Your task to perform on an android device: Search for vegetarian restaurants on Maps Image 0: 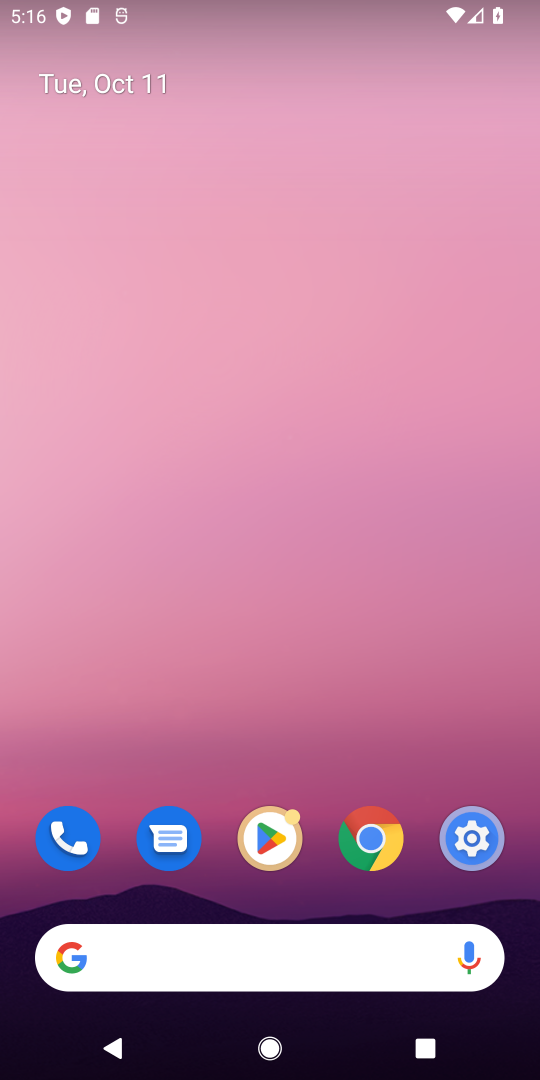
Step 0: drag from (323, 910) to (287, 502)
Your task to perform on an android device: Search for vegetarian restaurants on Maps Image 1: 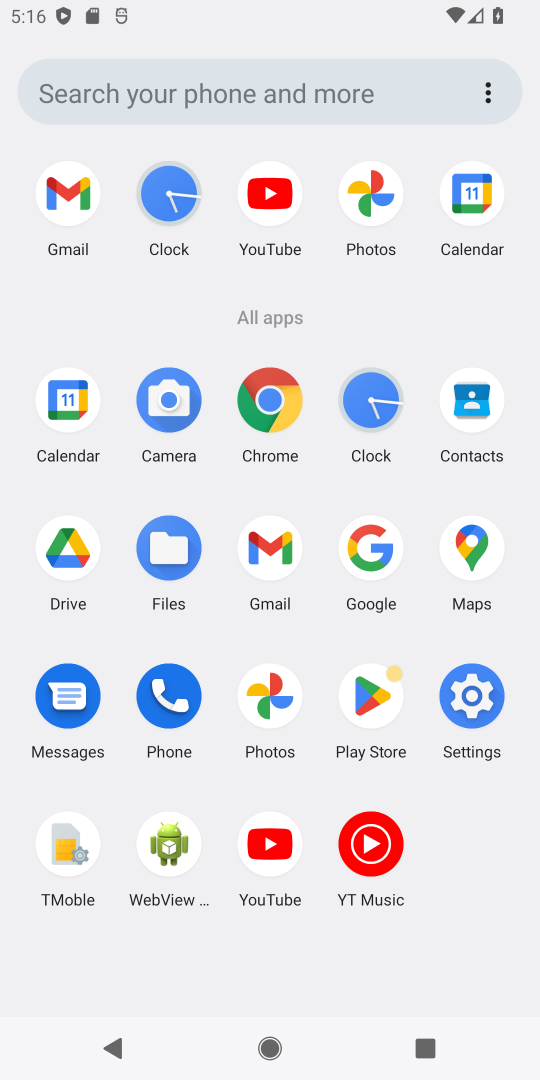
Step 1: click (468, 547)
Your task to perform on an android device: Search for vegetarian restaurants on Maps Image 2: 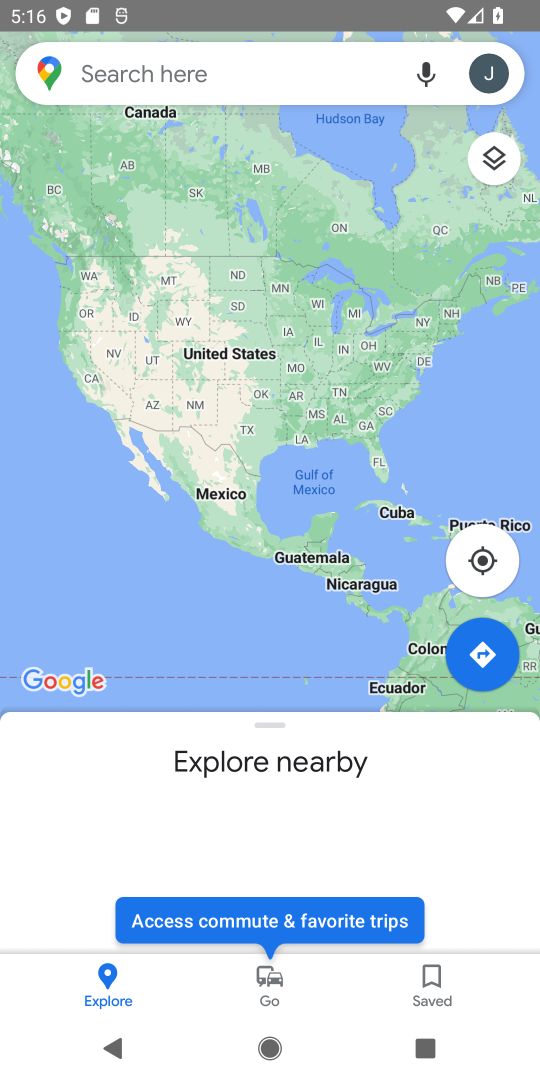
Step 2: click (195, 77)
Your task to perform on an android device: Search for vegetarian restaurants on Maps Image 3: 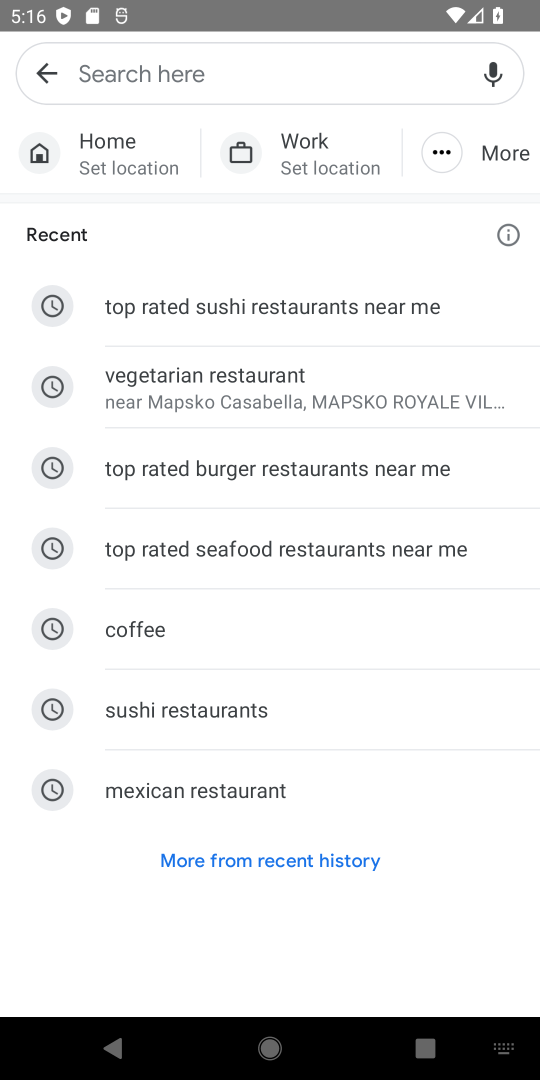
Step 3: click (195, 77)
Your task to perform on an android device: Search for vegetarian restaurants on Maps Image 4: 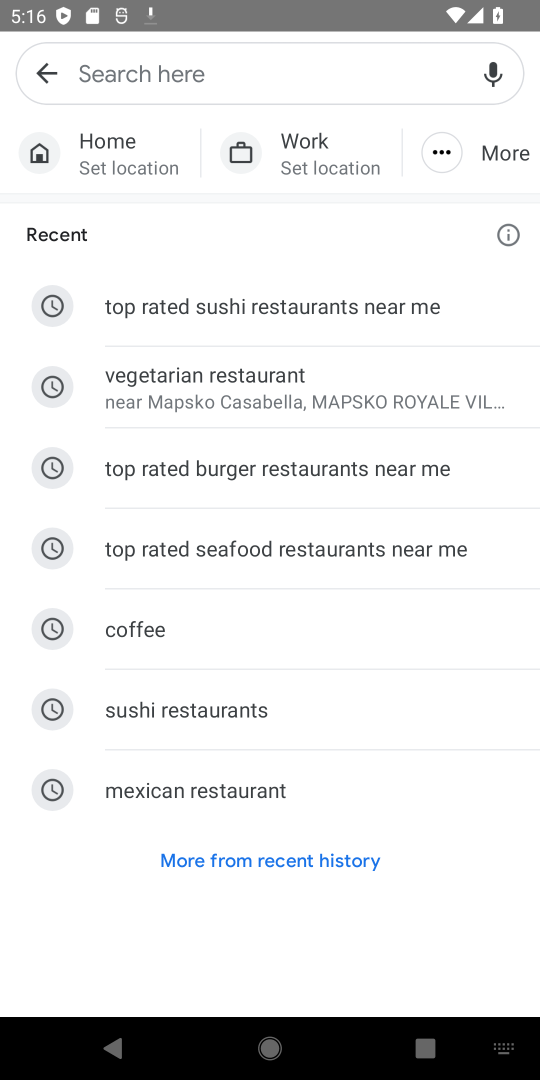
Step 4: type "vegetarian restaurants"
Your task to perform on an android device: Search for vegetarian restaurants on Maps Image 5: 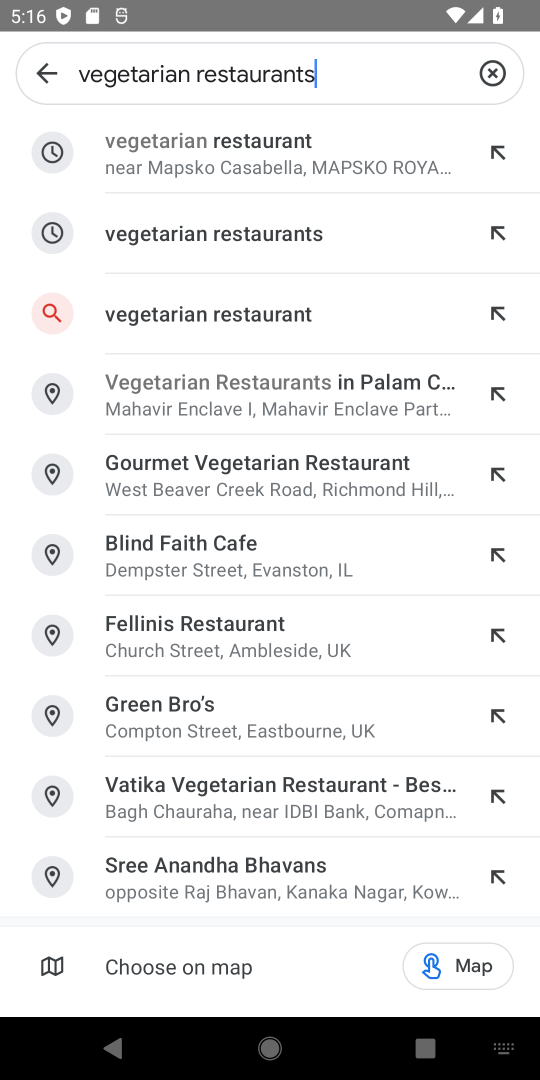
Step 5: click (238, 231)
Your task to perform on an android device: Search for vegetarian restaurants on Maps Image 6: 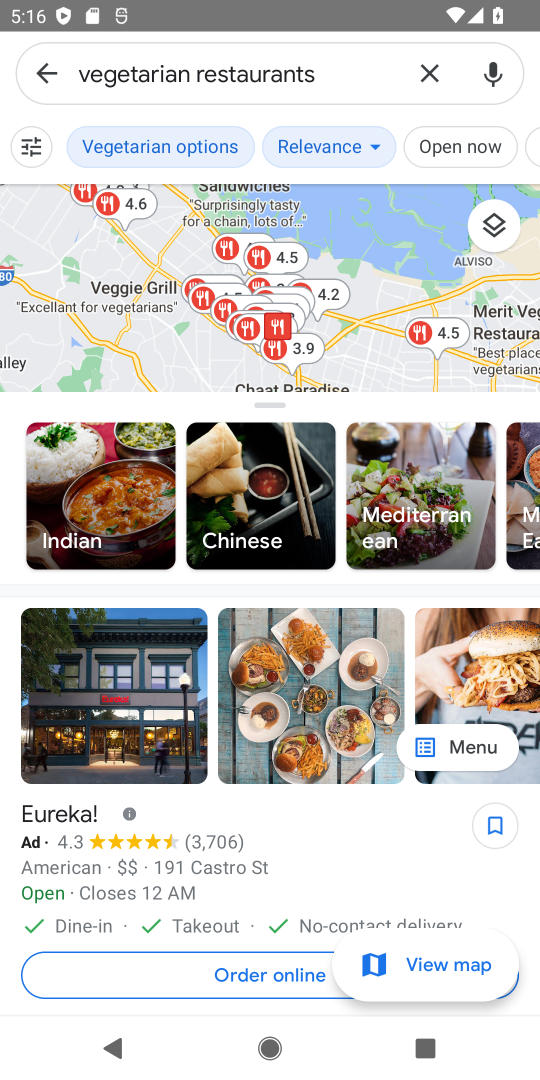
Step 6: drag from (314, 809) to (200, 347)
Your task to perform on an android device: Search for vegetarian restaurants on Maps Image 7: 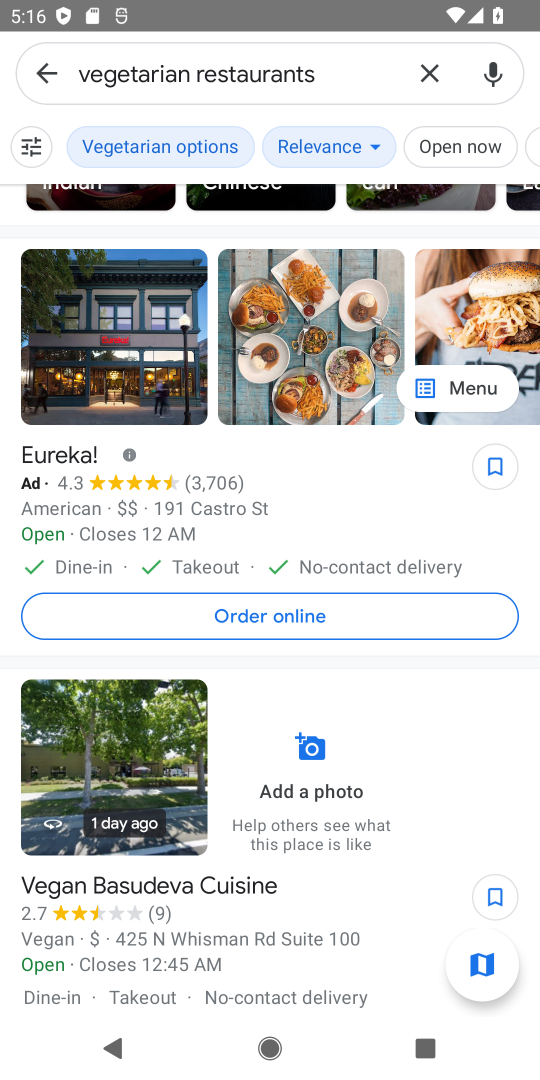
Step 7: drag from (295, 668) to (267, 430)
Your task to perform on an android device: Search for vegetarian restaurants on Maps Image 8: 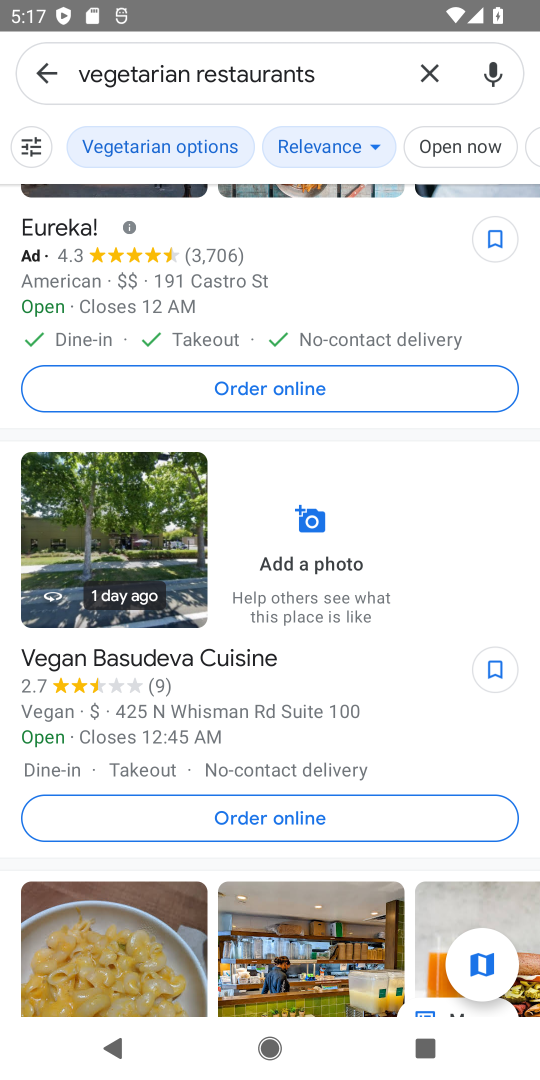
Step 8: drag from (502, 734) to (410, 273)
Your task to perform on an android device: Search for vegetarian restaurants on Maps Image 9: 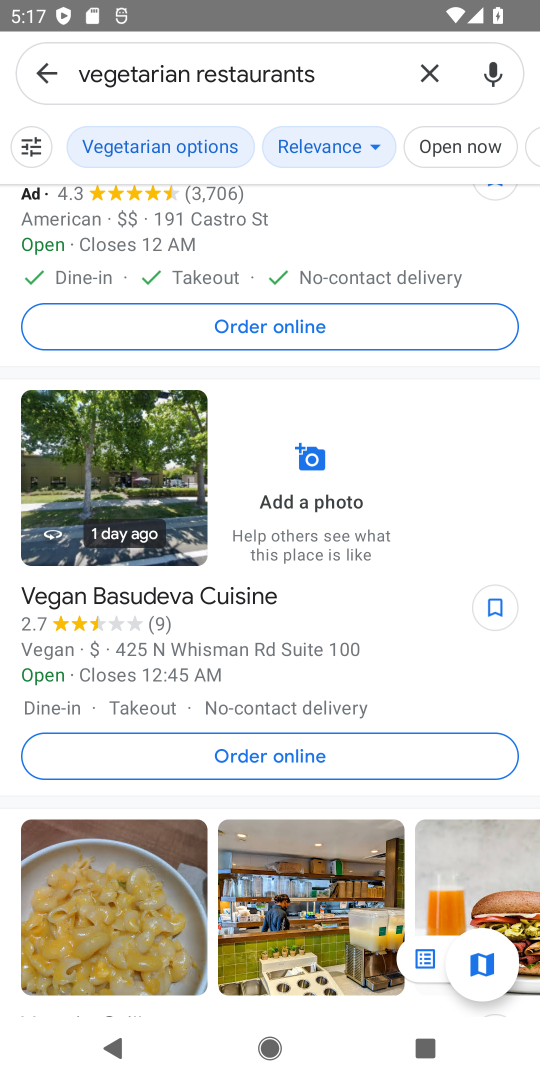
Step 9: drag from (503, 678) to (326, 222)
Your task to perform on an android device: Search for vegetarian restaurants on Maps Image 10: 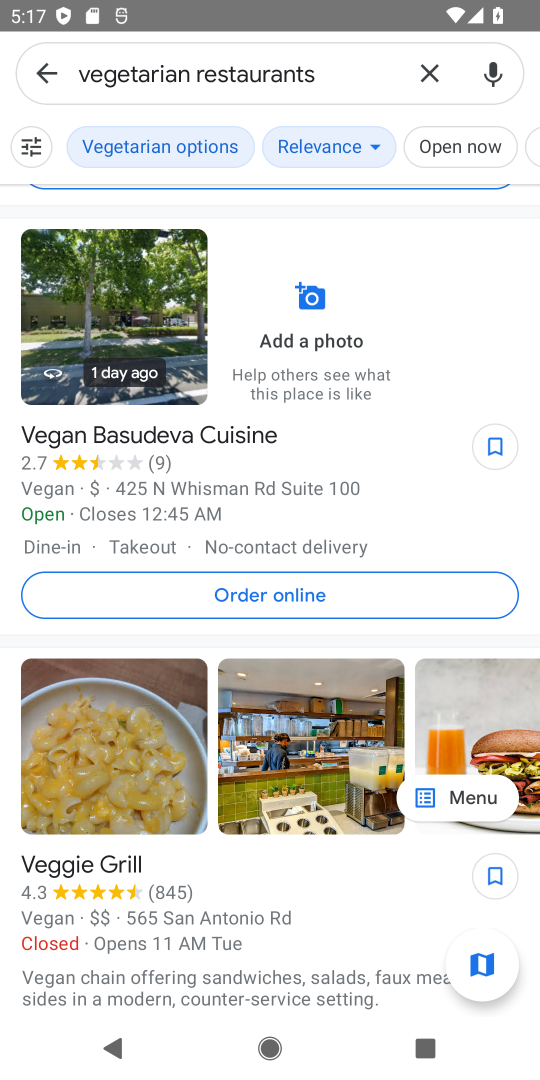
Step 10: drag from (434, 523) to (302, 198)
Your task to perform on an android device: Search for vegetarian restaurants on Maps Image 11: 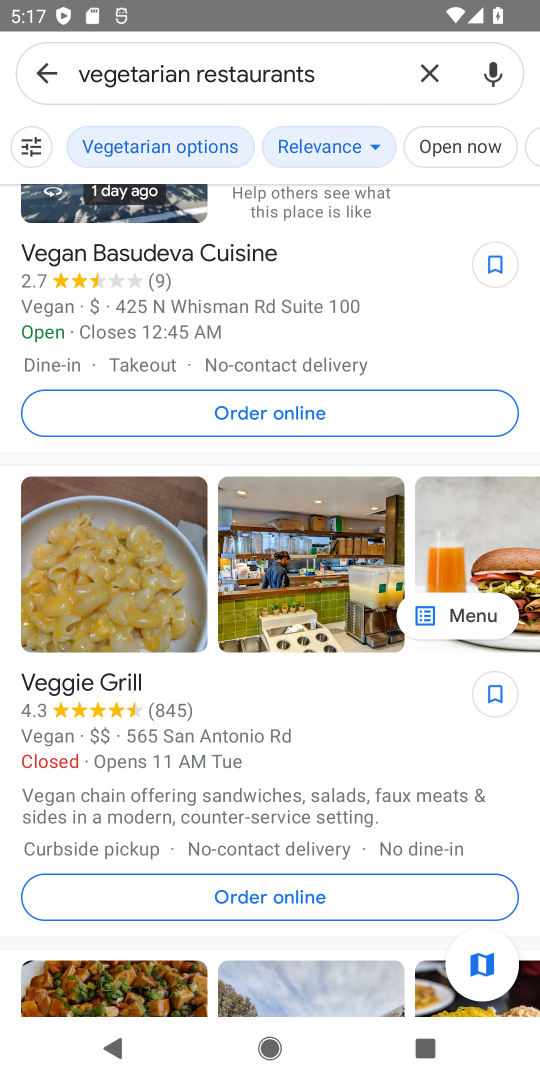
Step 11: drag from (350, 678) to (347, 536)
Your task to perform on an android device: Search for vegetarian restaurants on Maps Image 12: 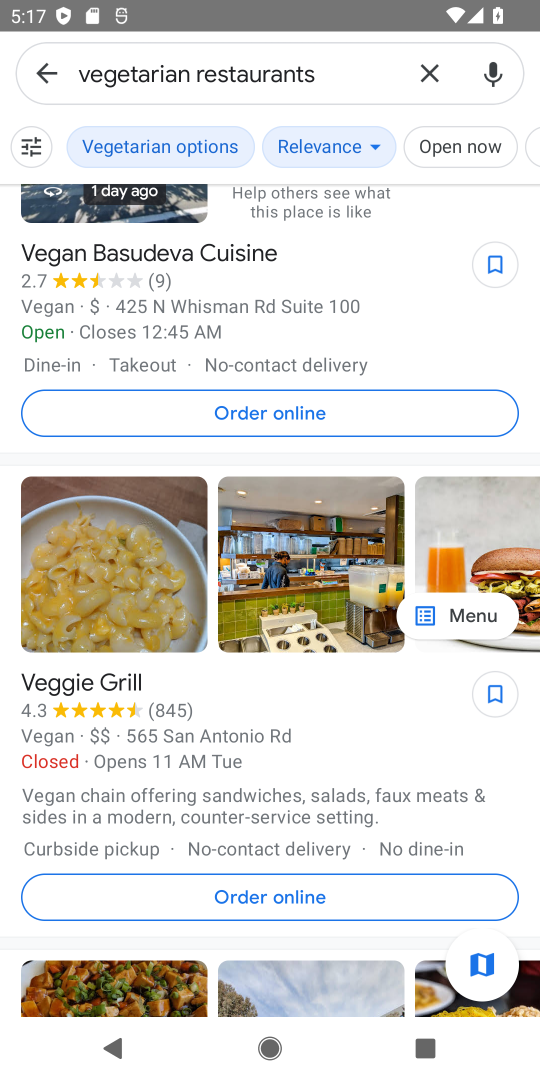
Step 12: click (365, 494)
Your task to perform on an android device: Search for vegetarian restaurants on Maps Image 13: 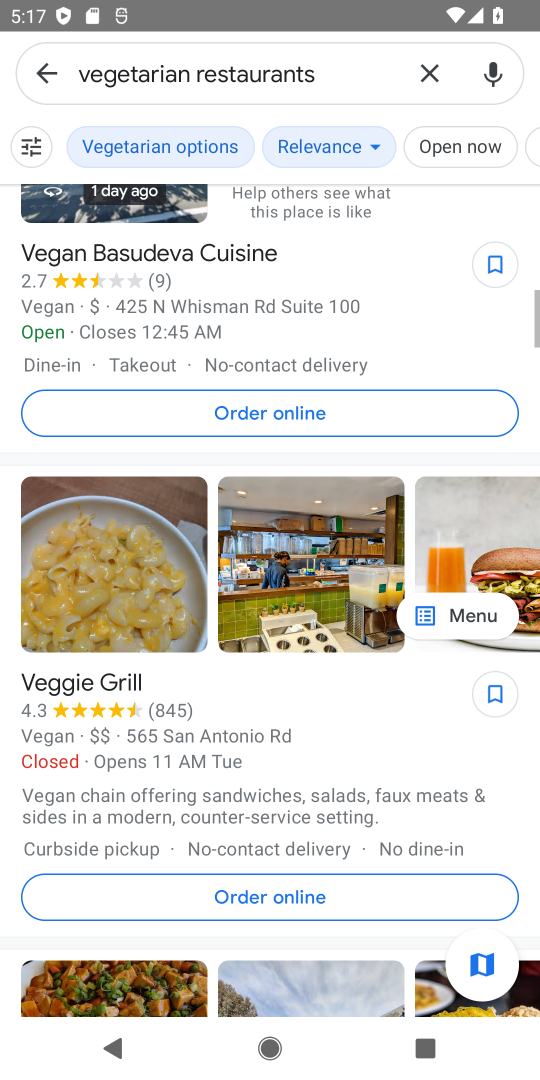
Step 13: task complete